Your task to perform on an android device: Go to Google Image 0: 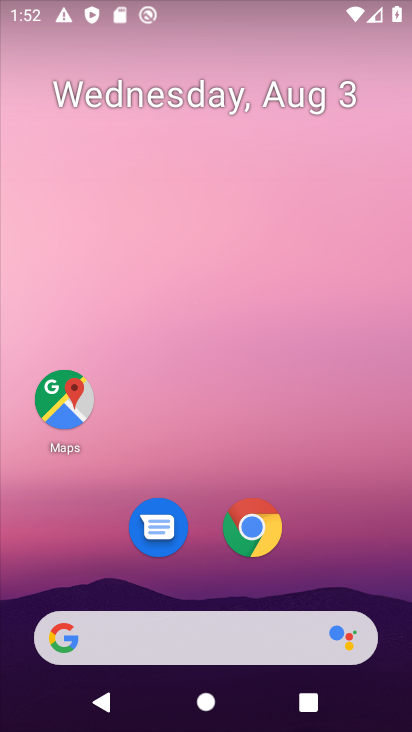
Step 0: click (123, 636)
Your task to perform on an android device: Go to Google Image 1: 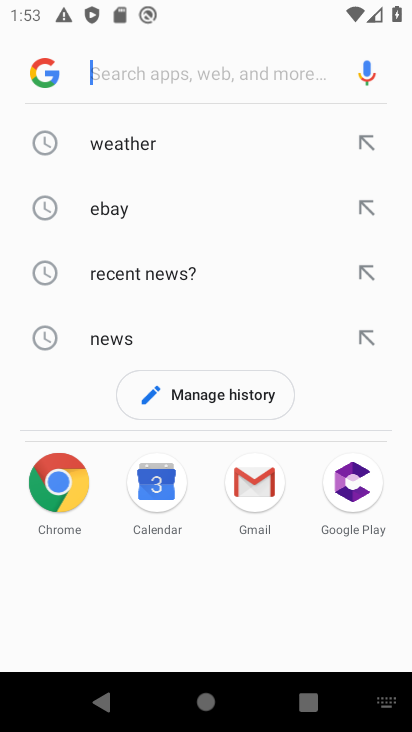
Step 1: task complete